Your task to perform on an android device: toggle translation in the chrome app Image 0: 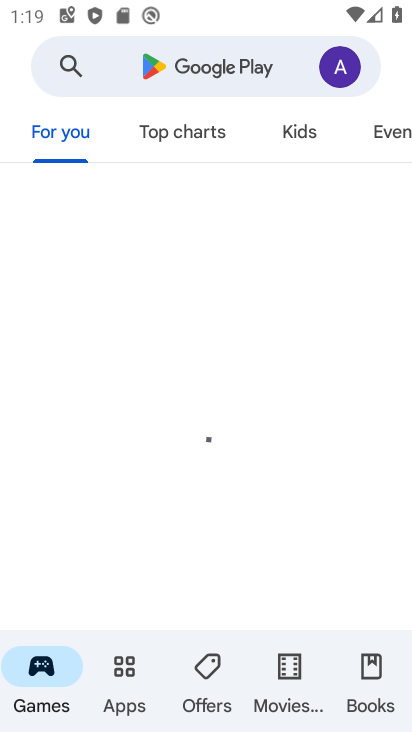
Step 0: press home button
Your task to perform on an android device: toggle translation in the chrome app Image 1: 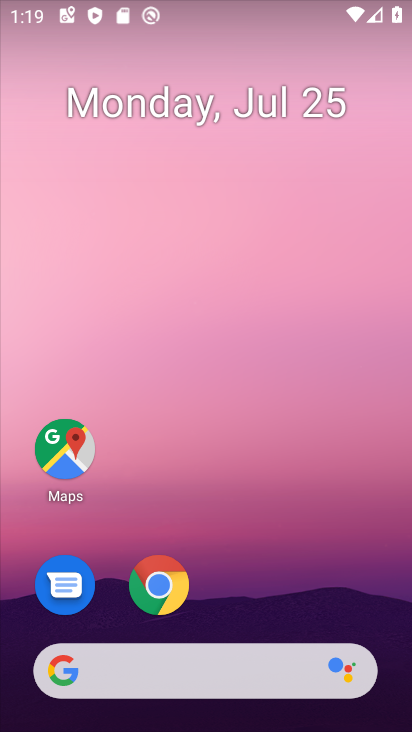
Step 1: click (167, 587)
Your task to perform on an android device: toggle translation in the chrome app Image 2: 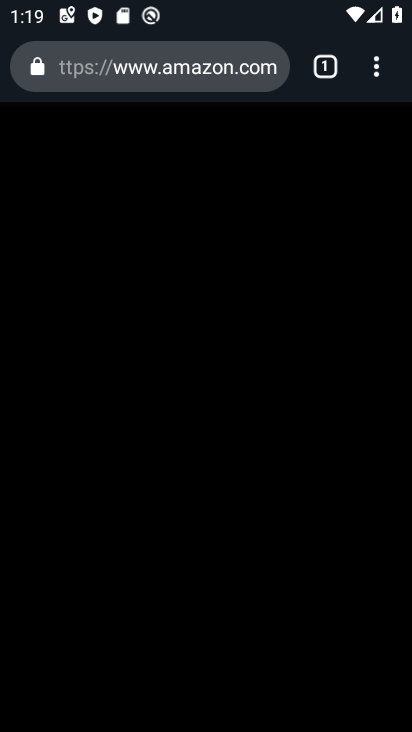
Step 2: press back button
Your task to perform on an android device: toggle translation in the chrome app Image 3: 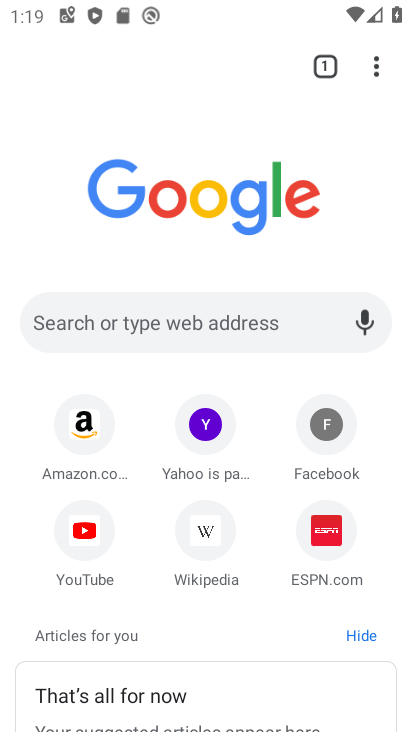
Step 3: click (374, 70)
Your task to perform on an android device: toggle translation in the chrome app Image 4: 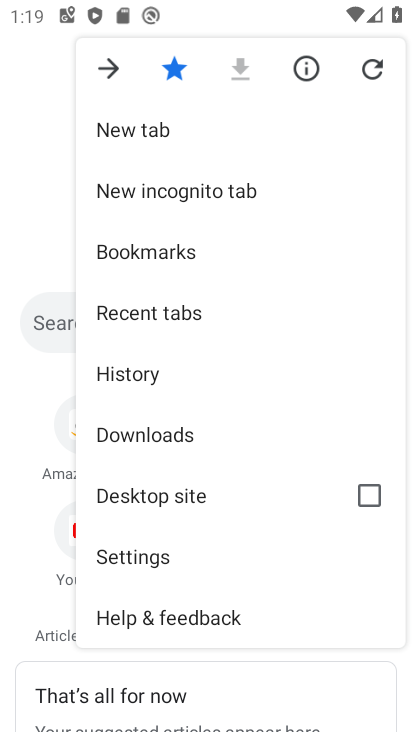
Step 4: click (155, 553)
Your task to perform on an android device: toggle translation in the chrome app Image 5: 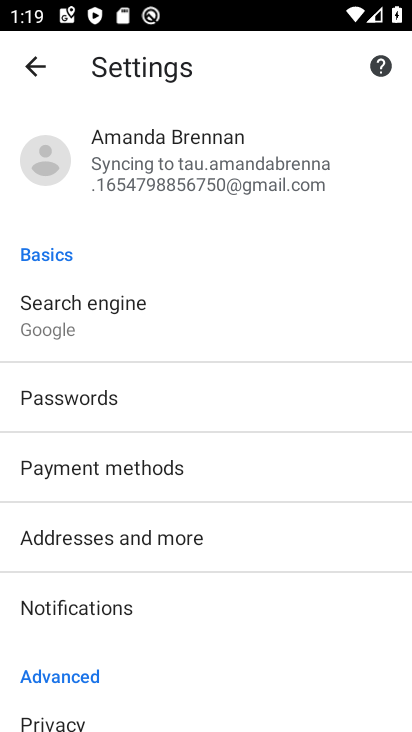
Step 5: drag from (215, 617) to (242, 277)
Your task to perform on an android device: toggle translation in the chrome app Image 6: 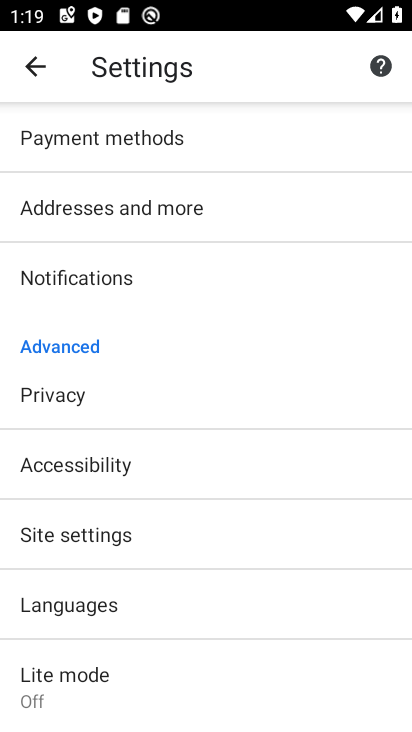
Step 6: click (186, 606)
Your task to perform on an android device: toggle translation in the chrome app Image 7: 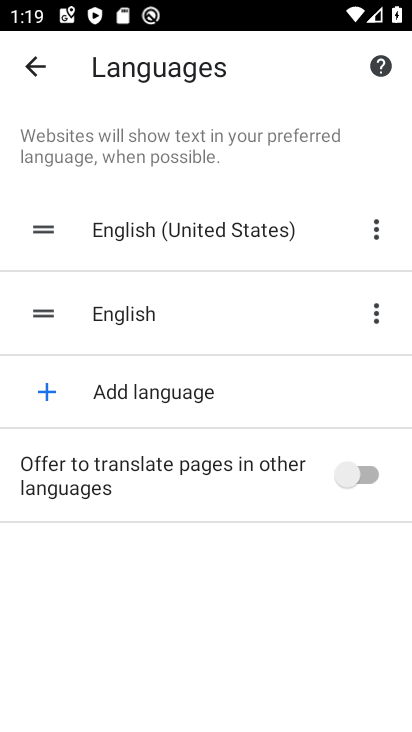
Step 7: click (355, 469)
Your task to perform on an android device: toggle translation in the chrome app Image 8: 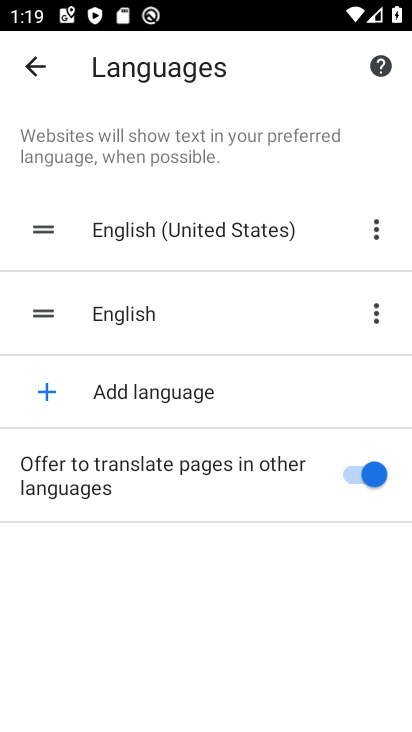
Step 8: task complete